Your task to perform on an android device: read, delete, or share a saved page in the chrome app Image 0: 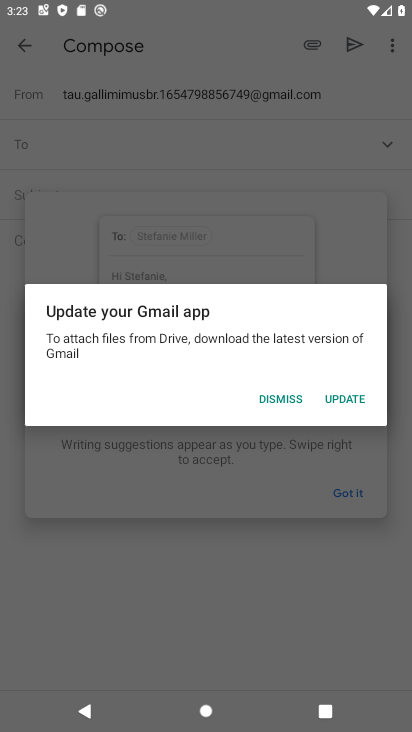
Step 0: press home button
Your task to perform on an android device: read, delete, or share a saved page in the chrome app Image 1: 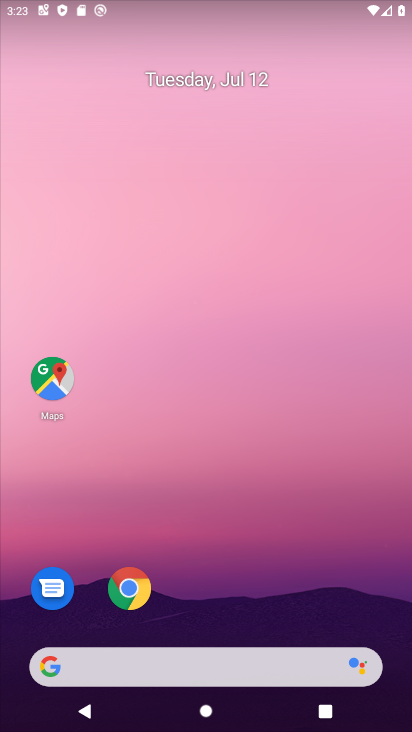
Step 1: click (131, 596)
Your task to perform on an android device: read, delete, or share a saved page in the chrome app Image 2: 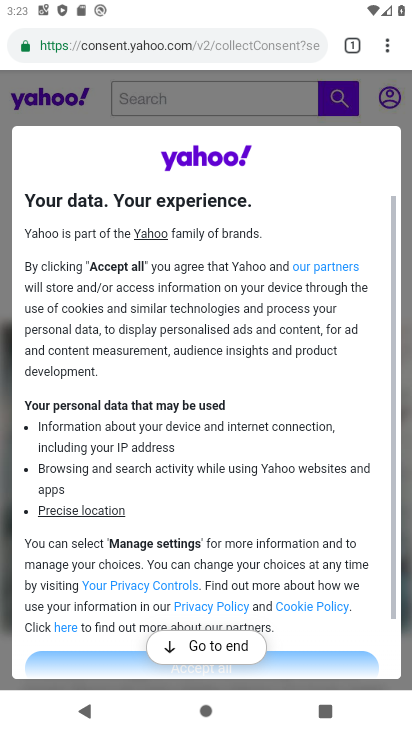
Step 2: click (390, 42)
Your task to perform on an android device: read, delete, or share a saved page in the chrome app Image 3: 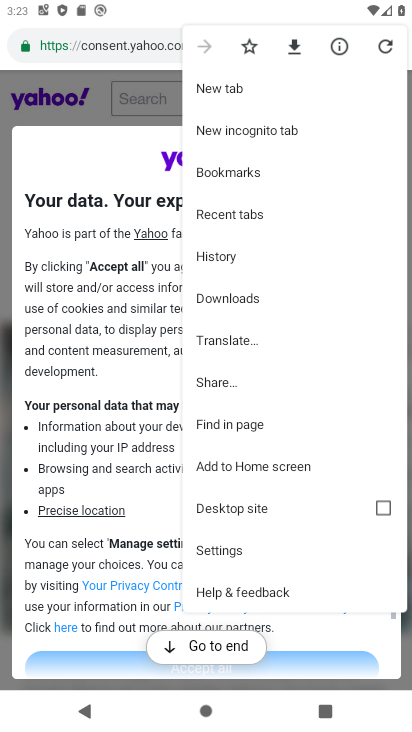
Step 3: click (241, 288)
Your task to perform on an android device: read, delete, or share a saved page in the chrome app Image 4: 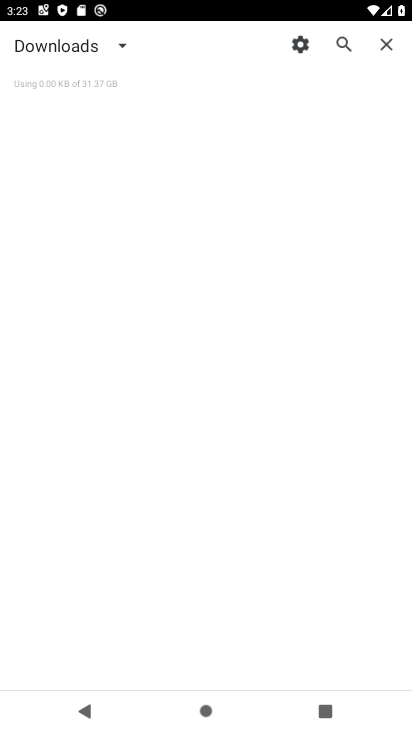
Step 4: click (63, 51)
Your task to perform on an android device: read, delete, or share a saved page in the chrome app Image 5: 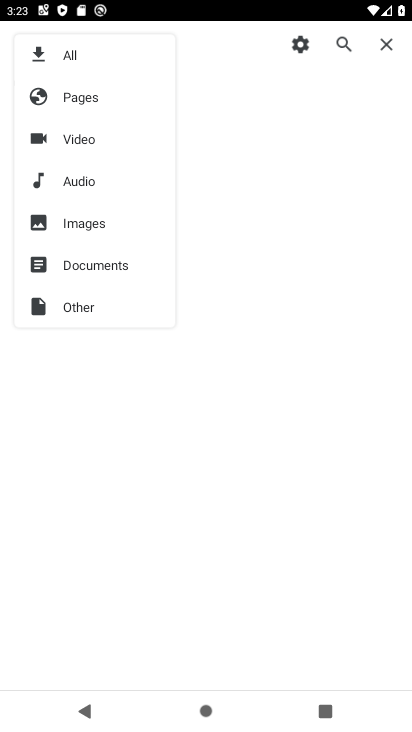
Step 5: click (84, 105)
Your task to perform on an android device: read, delete, or share a saved page in the chrome app Image 6: 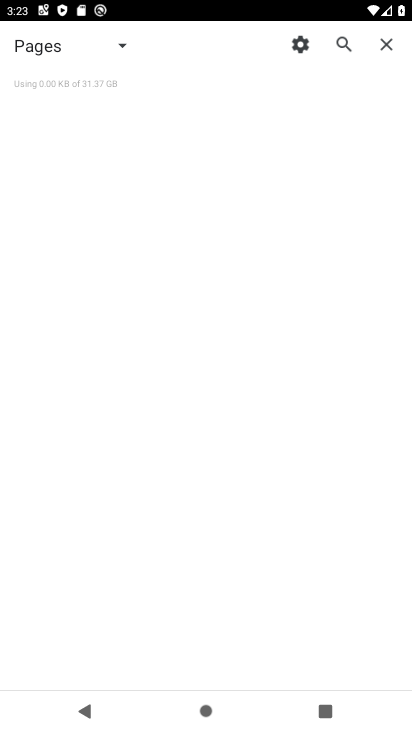
Step 6: task complete